Your task to perform on an android device: Do I have any events this weekend? Image 0: 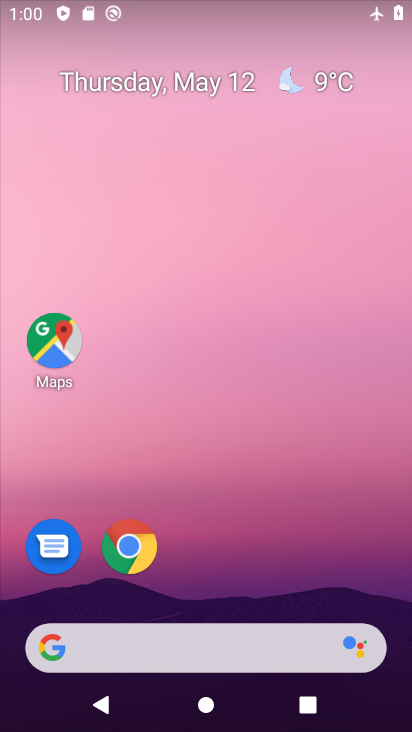
Step 0: drag from (248, 685) to (334, 287)
Your task to perform on an android device: Do I have any events this weekend? Image 1: 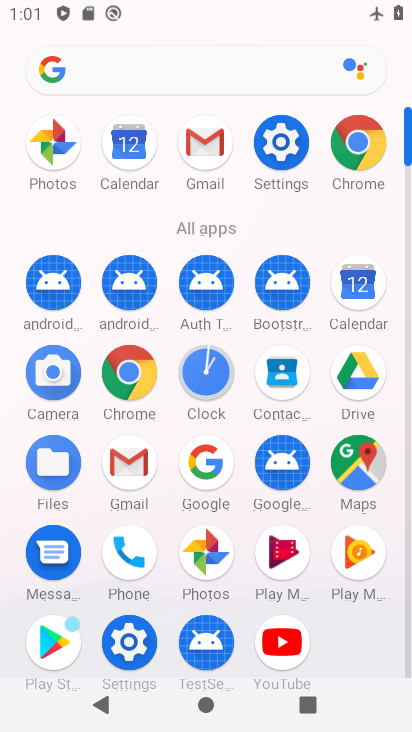
Step 1: click (356, 291)
Your task to perform on an android device: Do I have any events this weekend? Image 2: 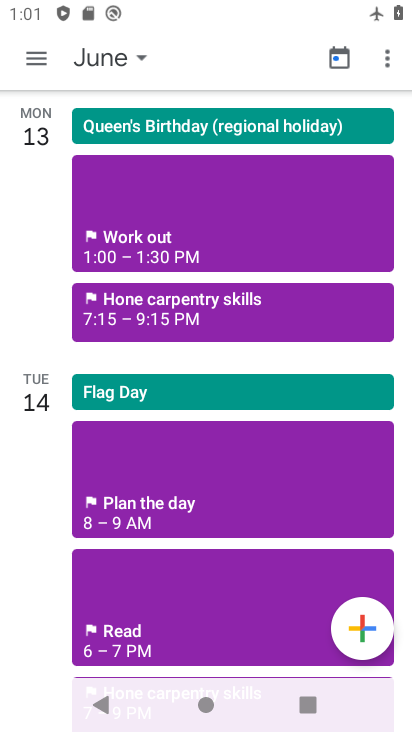
Step 2: click (41, 79)
Your task to perform on an android device: Do I have any events this weekend? Image 3: 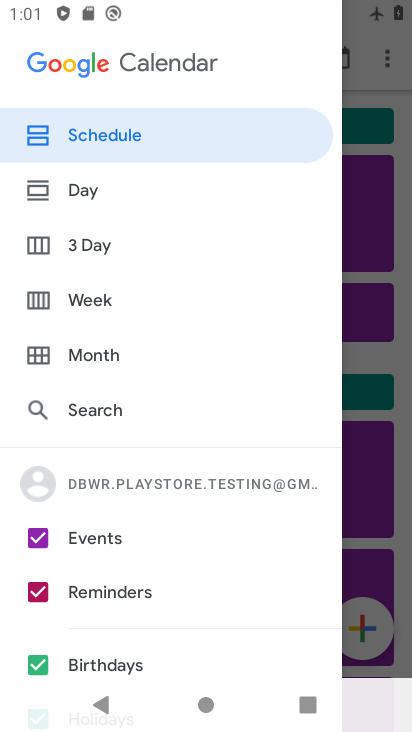
Step 3: click (73, 307)
Your task to perform on an android device: Do I have any events this weekend? Image 4: 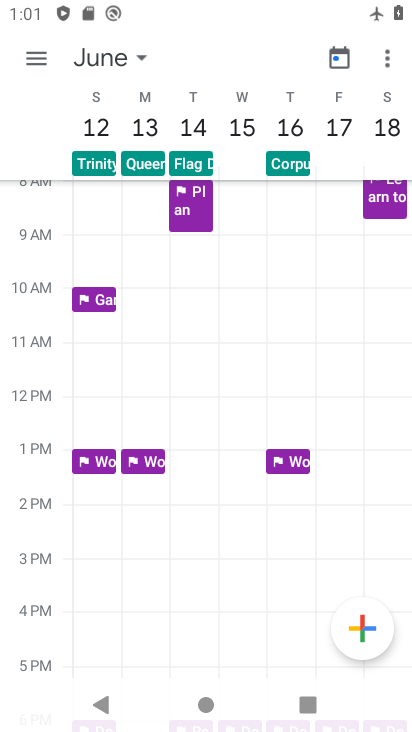
Step 4: task complete